Your task to perform on an android device: Search for seafood restaurants on Google Maps Image 0: 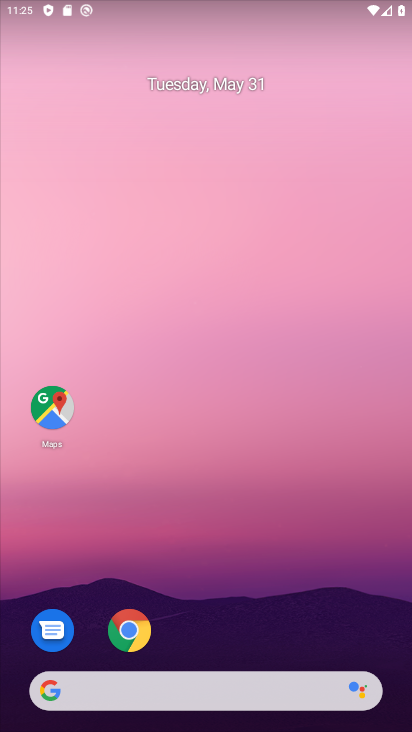
Step 0: click (59, 412)
Your task to perform on an android device: Search for seafood restaurants on Google Maps Image 1: 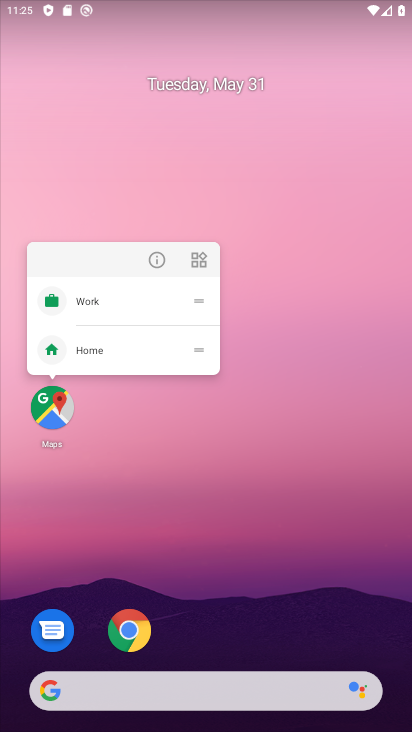
Step 1: click (48, 394)
Your task to perform on an android device: Search for seafood restaurants on Google Maps Image 2: 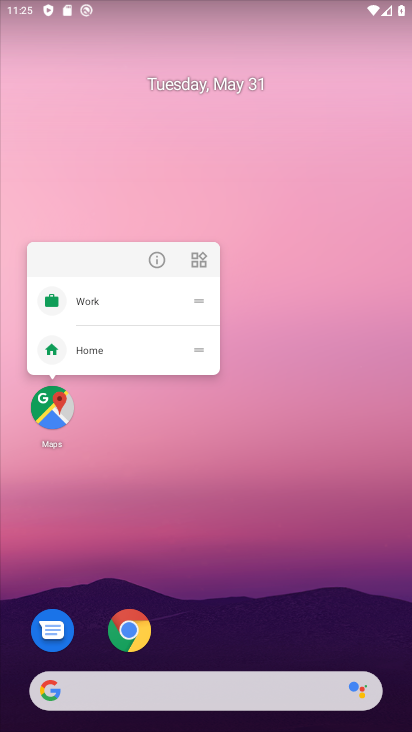
Step 2: click (48, 407)
Your task to perform on an android device: Search for seafood restaurants on Google Maps Image 3: 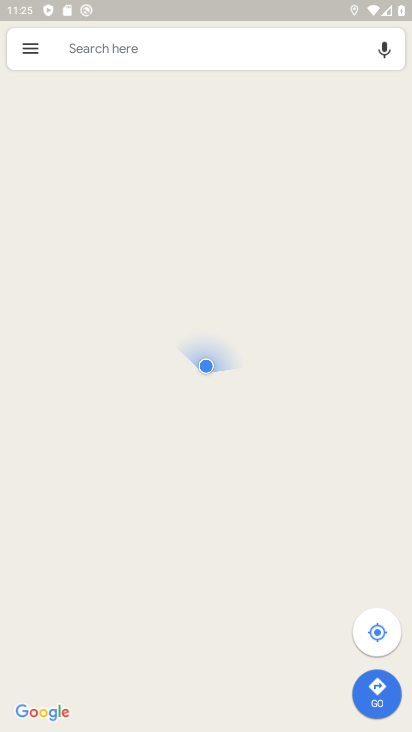
Step 3: click (140, 47)
Your task to perform on an android device: Search for seafood restaurants on Google Maps Image 4: 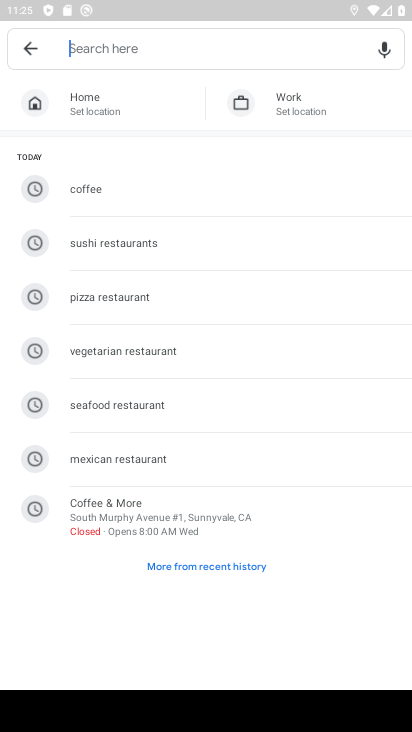
Step 4: type "seafood restaurants"
Your task to perform on an android device: Search for seafood restaurants on Google Maps Image 5: 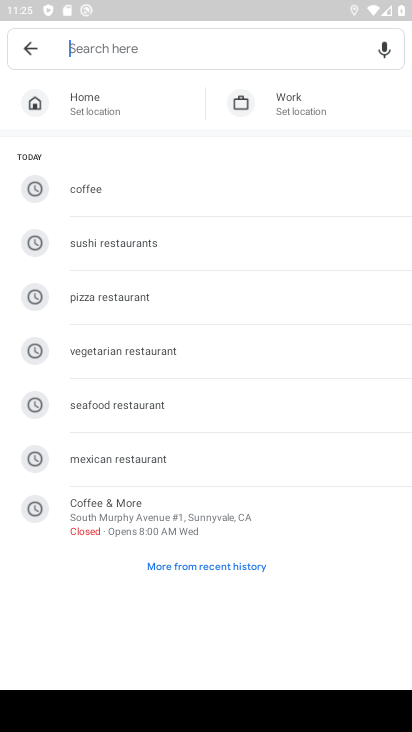
Step 5: click (145, 49)
Your task to perform on an android device: Search for seafood restaurants on Google Maps Image 6: 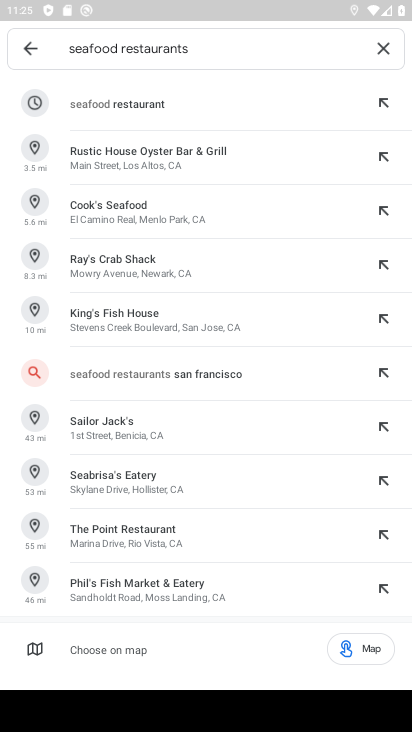
Step 6: click (117, 101)
Your task to perform on an android device: Search for seafood restaurants on Google Maps Image 7: 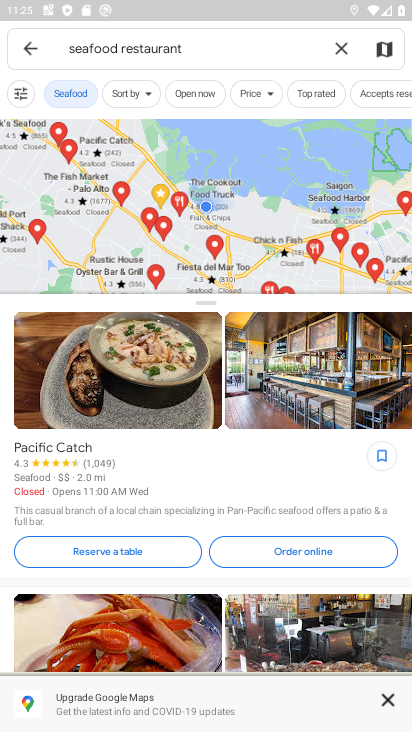
Step 7: task complete